Your task to perform on an android device: Open calendar and show me the second week of next month Image 0: 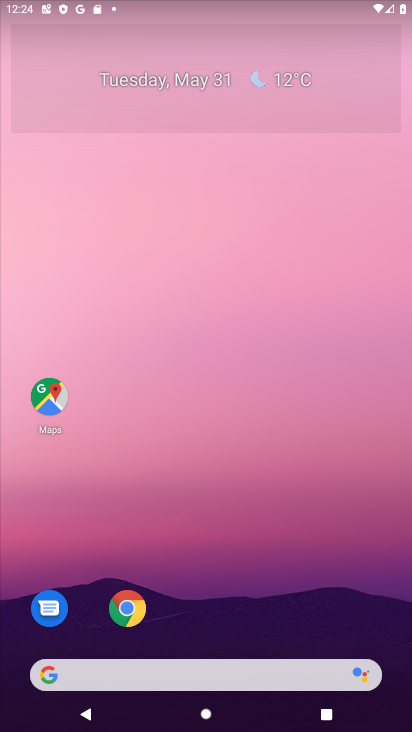
Step 0: drag from (239, 611) to (311, 162)
Your task to perform on an android device: Open calendar and show me the second week of next month Image 1: 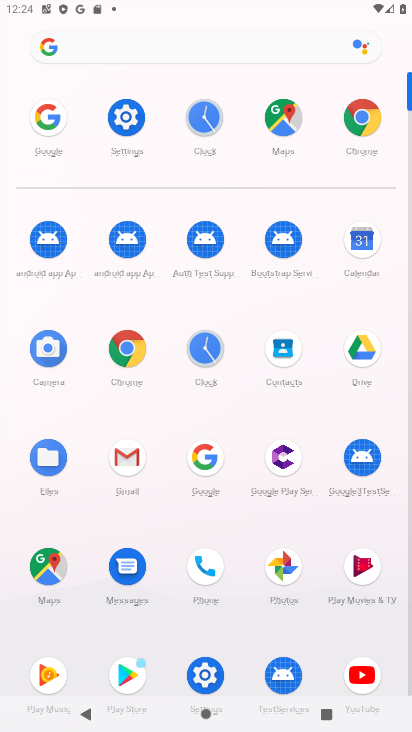
Step 1: click (361, 240)
Your task to perform on an android device: Open calendar and show me the second week of next month Image 2: 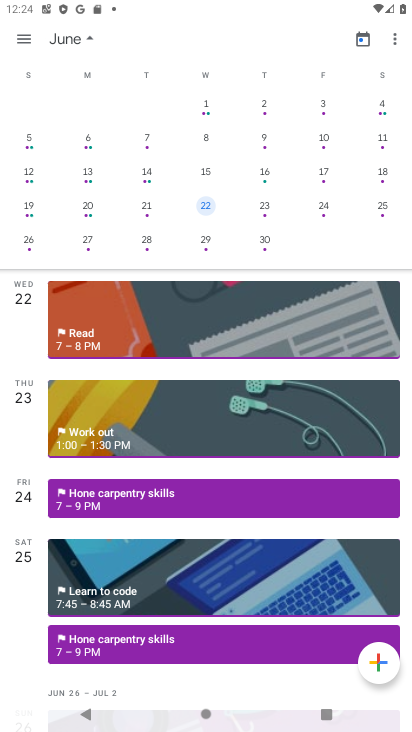
Step 2: click (262, 139)
Your task to perform on an android device: Open calendar and show me the second week of next month Image 3: 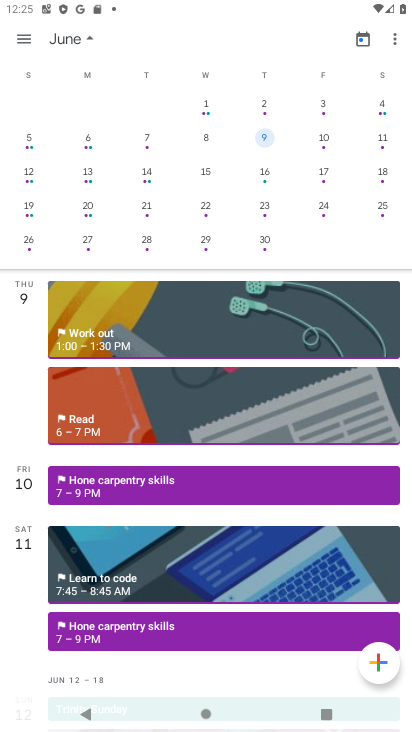
Step 3: task complete